Your task to perform on an android device: move an email to a new category in the gmail app Image 0: 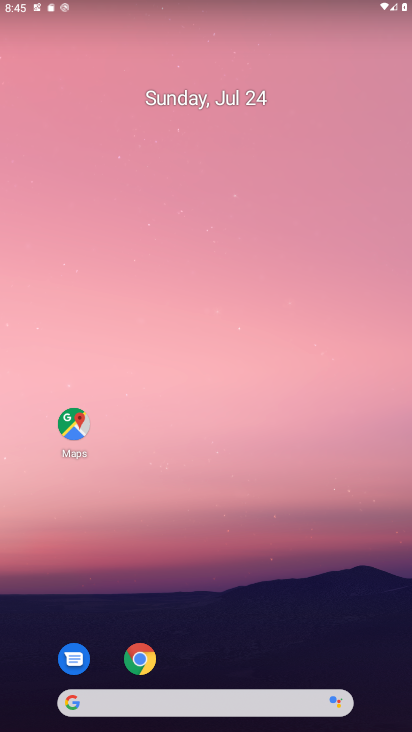
Step 0: drag from (222, 709) to (227, 284)
Your task to perform on an android device: move an email to a new category in the gmail app Image 1: 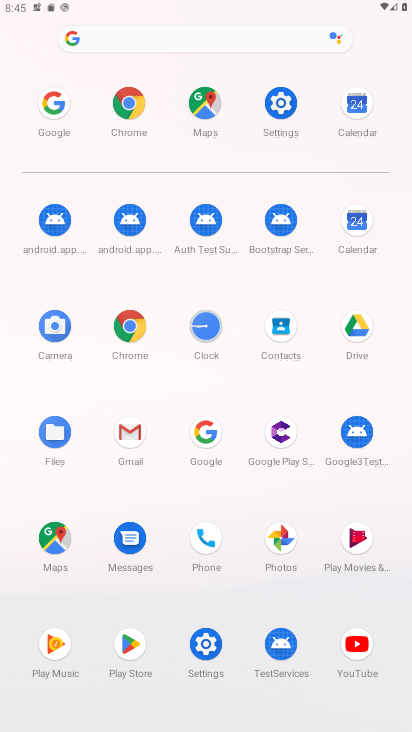
Step 1: click (128, 425)
Your task to perform on an android device: move an email to a new category in the gmail app Image 2: 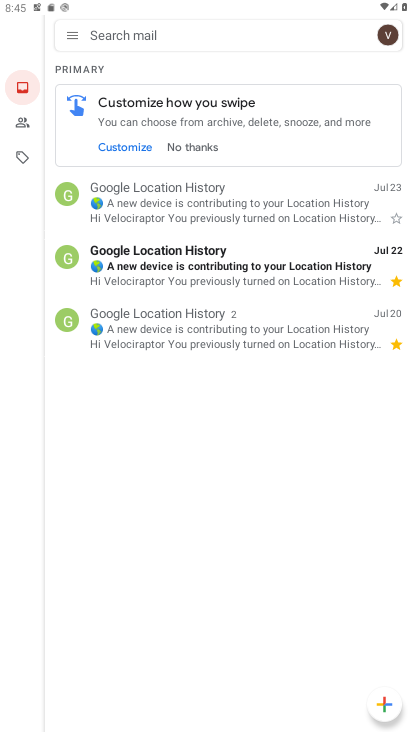
Step 2: click (174, 197)
Your task to perform on an android device: move an email to a new category in the gmail app Image 3: 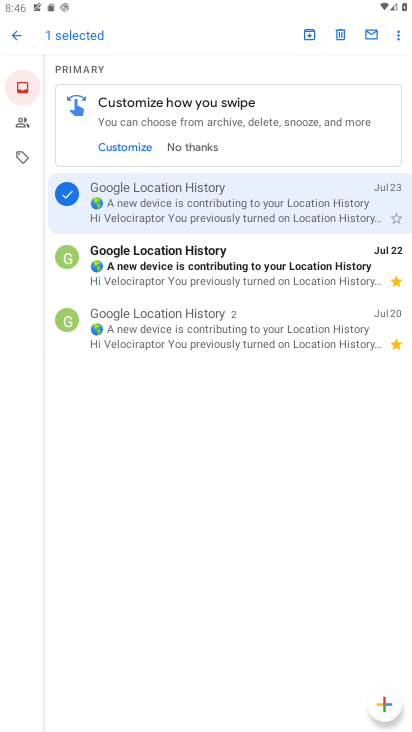
Step 3: click (401, 35)
Your task to perform on an android device: move an email to a new category in the gmail app Image 4: 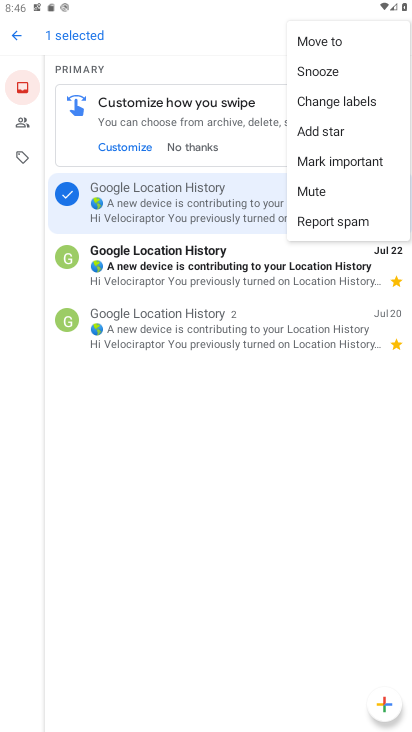
Step 4: click (316, 36)
Your task to perform on an android device: move an email to a new category in the gmail app Image 5: 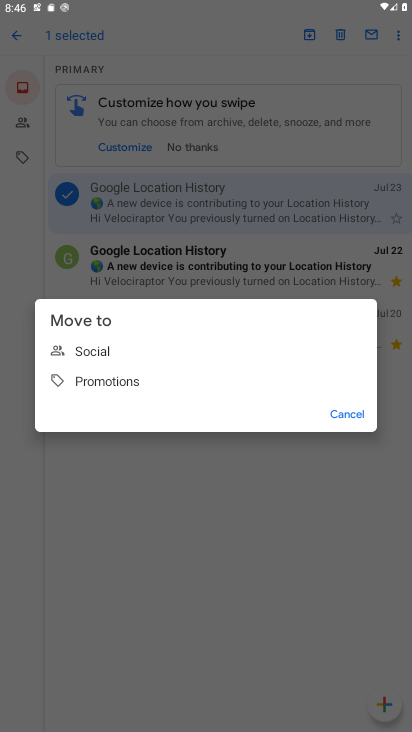
Step 5: click (93, 353)
Your task to perform on an android device: move an email to a new category in the gmail app Image 6: 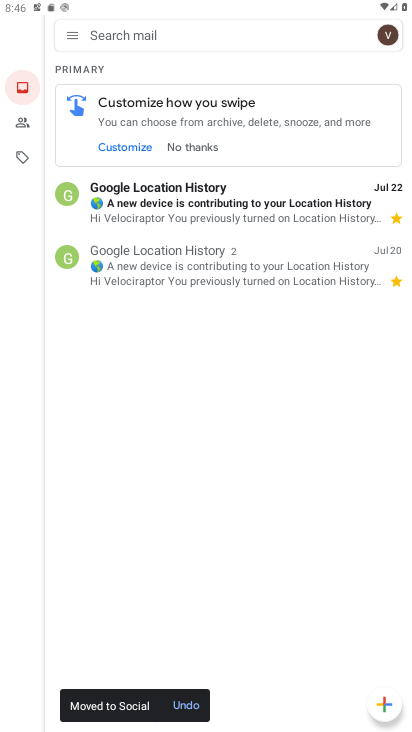
Step 6: task complete